Your task to perform on an android device: manage bookmarks in the chrome app Image 0: 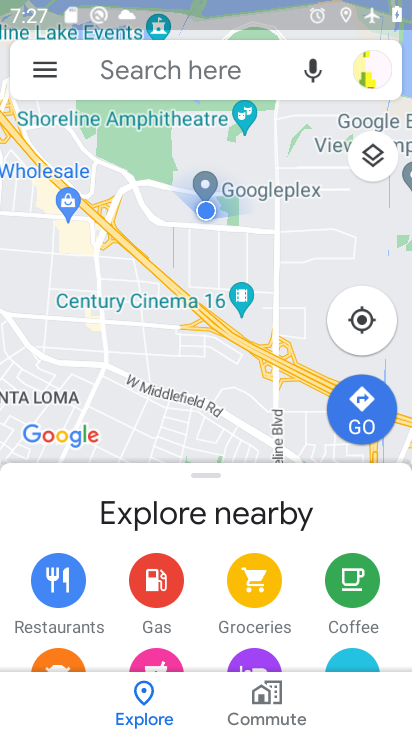
Step 0: press home button
Your task to perform on an android device: manage bookmarks in the chrome app Image 1: 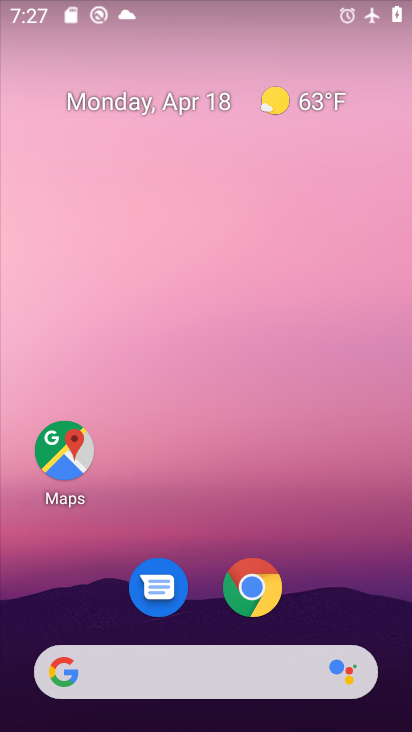
Step 1: click (271, 588)
Your task to perform on an android device: manage bookmarks in the chrome app Image 2: 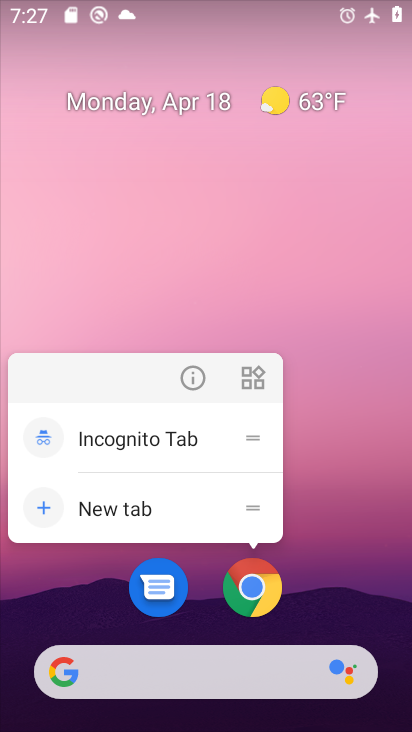
Step 2: click (271, 588)
Your task to perform on an android device: manage bookmarks in the chrome app Image 3: 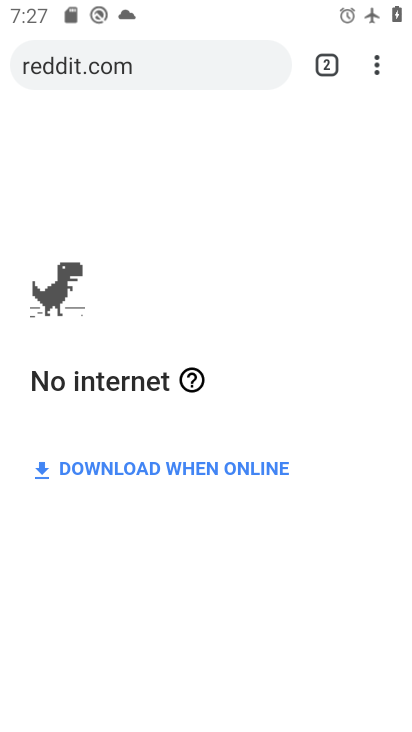
Step 3: click (376, 71)
Your task to perform on an android device: manage bookmarks in the chrome app Image 4: 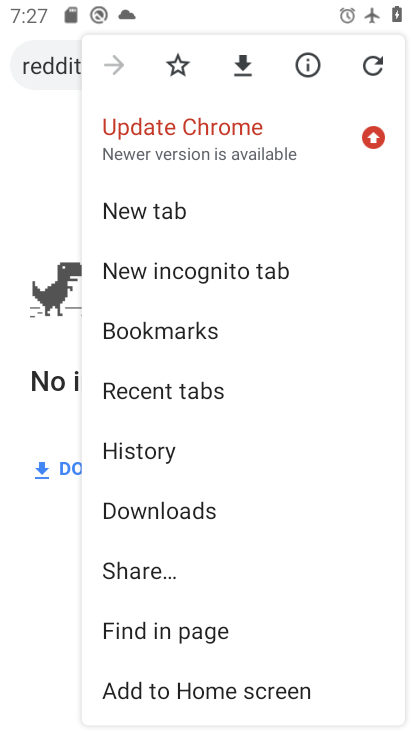
Step 4: click (255, 324)
Your task to perform on an android device: manage bookmarks in the chrome app Image 5: 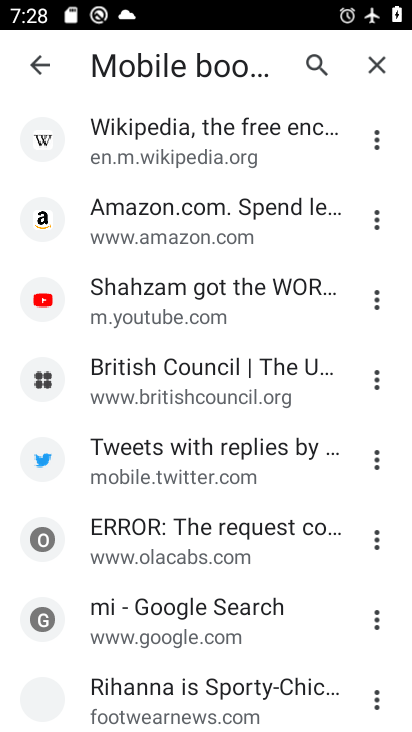
Step 5: click (372, 308)
Your task to perform on an android device: manage bookmarks in the chrome app Image 6: 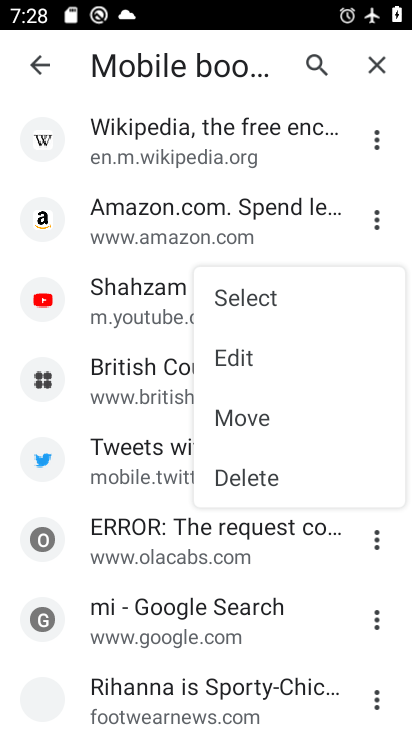
Step 6: click (289, 484)
Your task to perform on an android device: manage bookmarks in the chrome app Image 7: 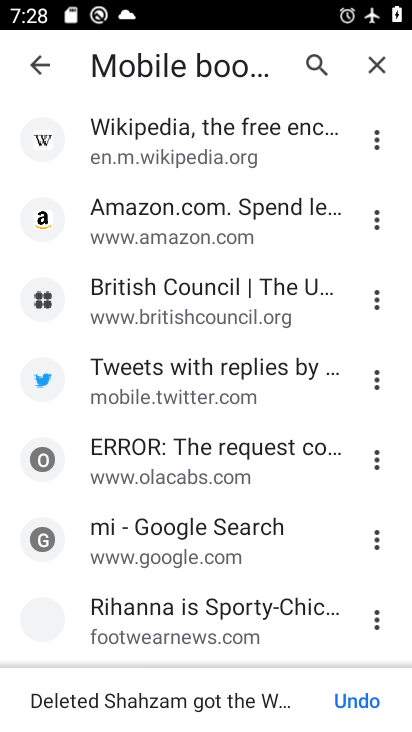
Step 7: task complete